Your task to perform on an android device: remove spam from my inbox in the gmail app Image 0: 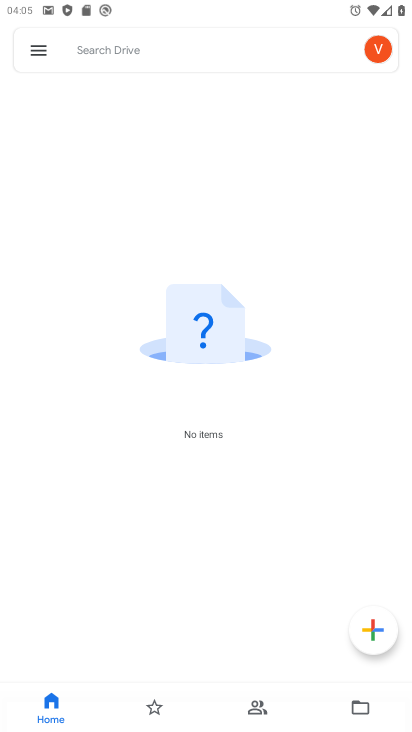
Step 0: press home button
Your task to perform on an android device: remove spam from my inbox in the gmail app Image 1: 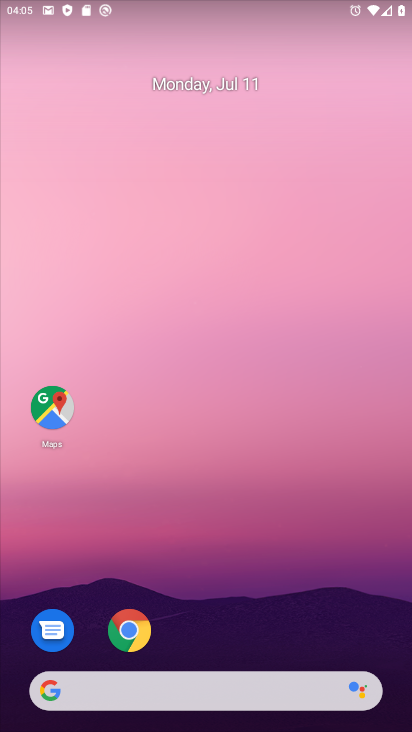
Step 1: drag from (215, 647) to (210, 176)
Your task to perform on an android device: remove spam from my inbox in the gmail app Image 2: 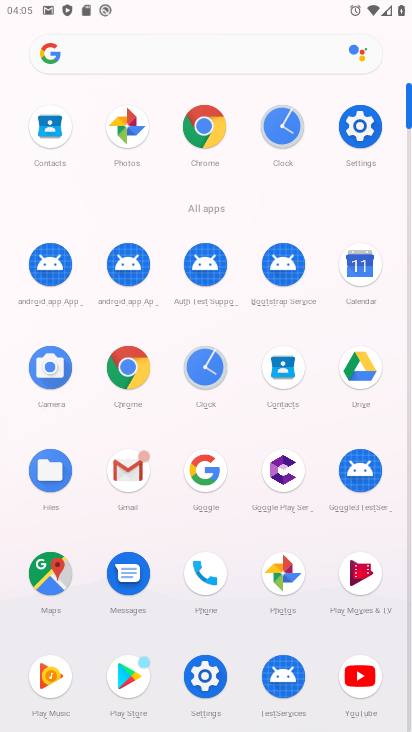
Step 2: click (125, 462)
Your task to perform on an android device: remove spam from my inbox in the gmail app Image 3: 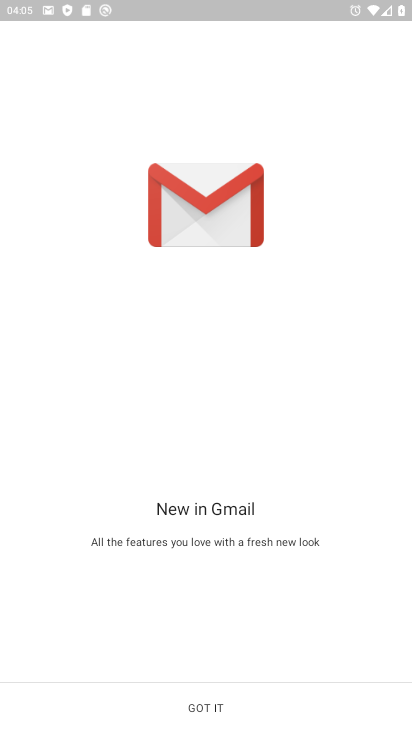
Step 3: click (202, 699)
Your task to perform on an android device: remove spam from my inbox in the gmail app Image 4: 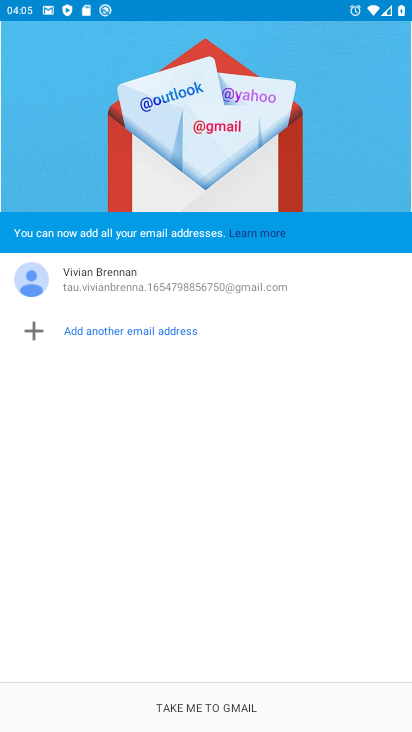
Step 4: click (224, 710)
Your task to perform on an android device: remove spam from my inbox in the gmail app Image 5: 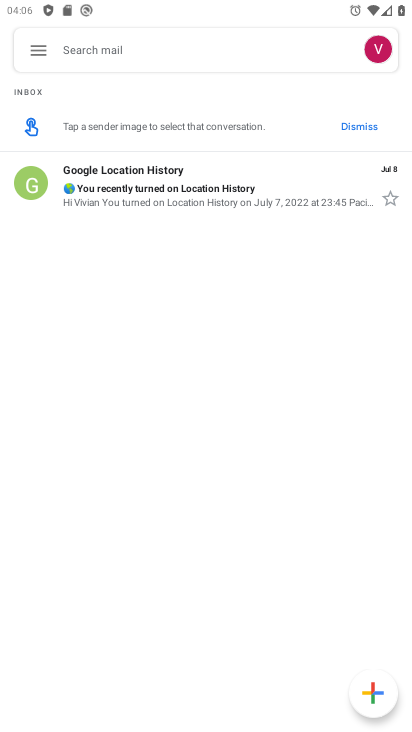
Step 5: click (36, 49)
Your task to perform on an android device: remove spam from my inbox in the gmail app Image 6: 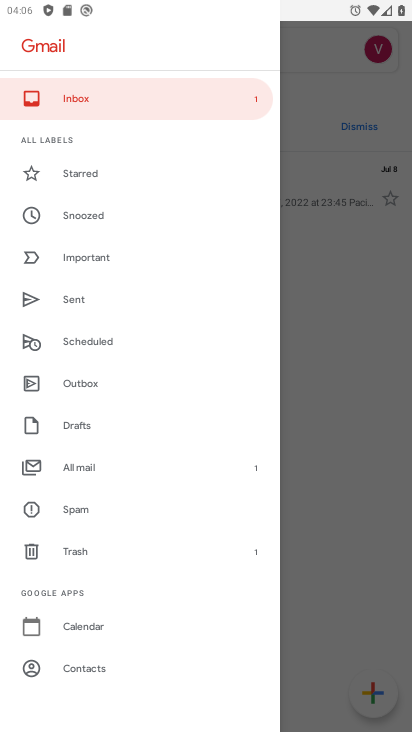
Step 6: click (69, 508)
Your task to perform on an android device: remove spam from my inbox in the gmail app Image 7: 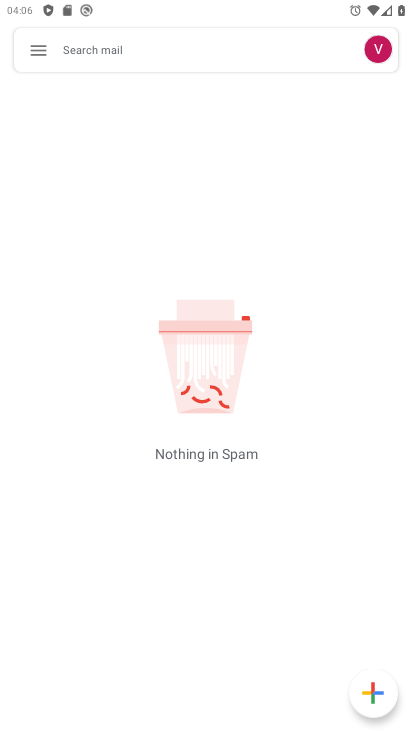
Step 7: click (34, 48)
Your task to perform on an android device: remove spam from my inbox in the gmail app Image 8: 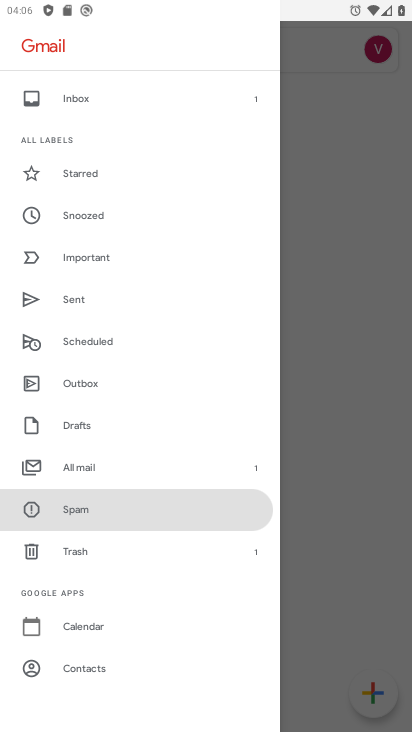
Step 8: click (90, 508)
Your task to perform on an android device: remove spam from my inbox in the gmail app Image 9: 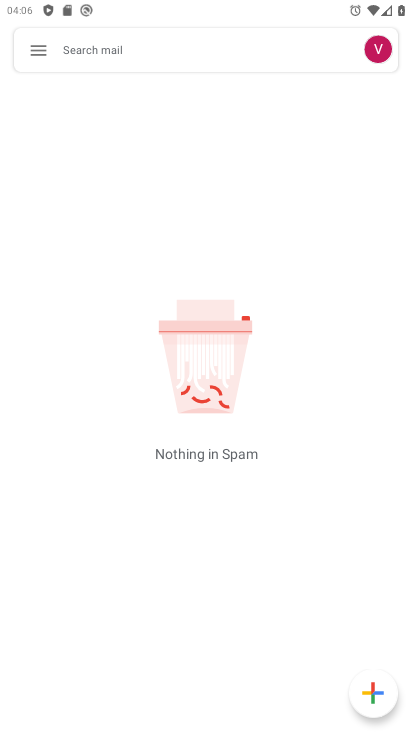
Step 9: task complete